Your task to perform on an android device: Do I have any events this weekend? Image 0: 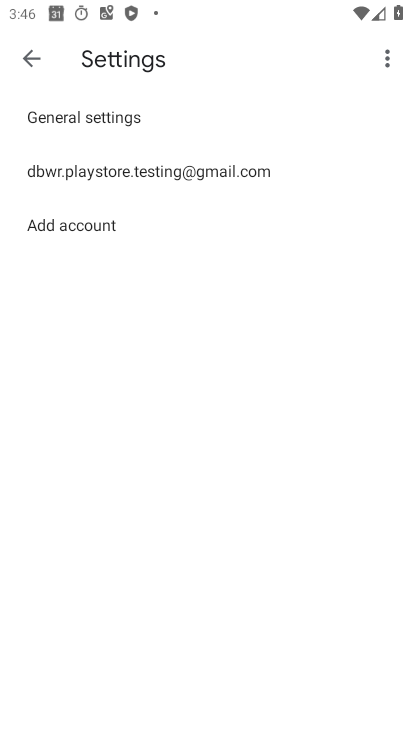
Step 0: press home button
Your task to perform on an android device: Do I have any events this weekend? Image 1: 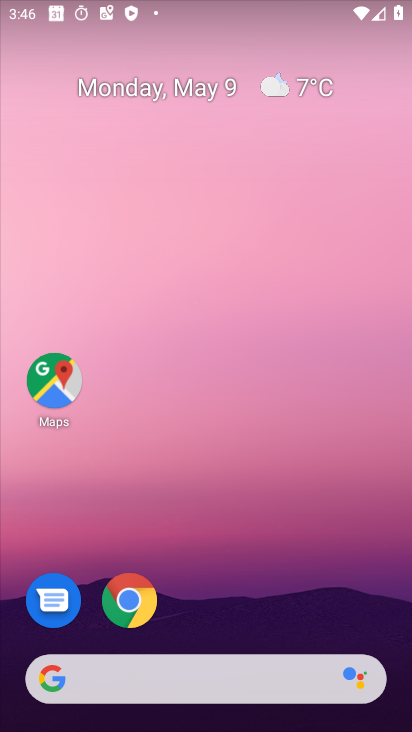
Step 1: drag from (287, 569) to (300, 147)
Your task to perform on an android device: Do I have any events this weekend? Image 2: 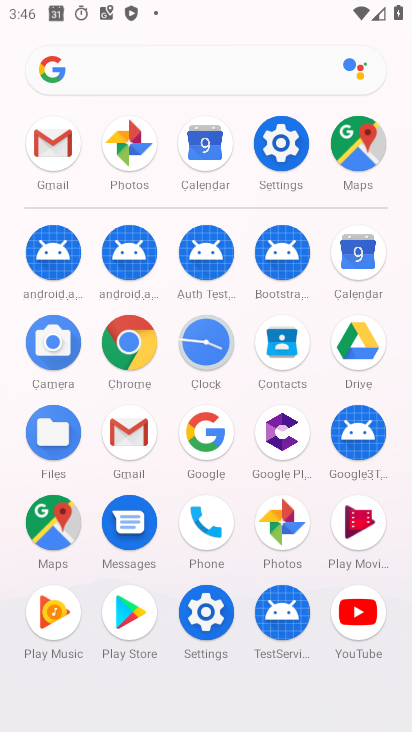
Step 2: click (364, 252)
Your task to perform on an android device: Do I have any events this weekend? Image 3: 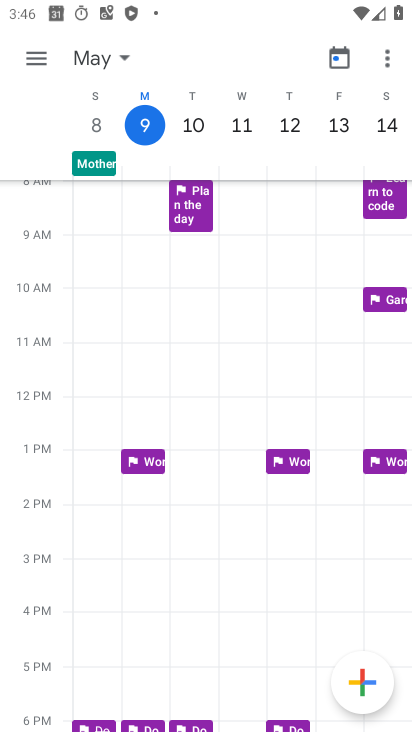
Step 3: task complete